Your task to perform on an android device: turn off priority inbox in the gmail app Image 0: 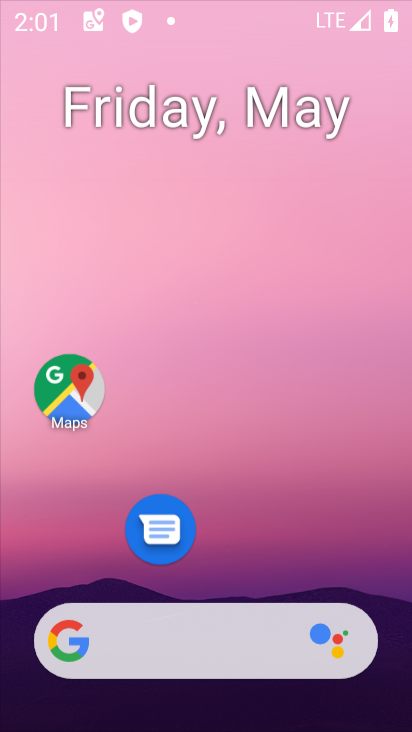
Step 0: drag from (208, 99) to (314, 258)
Your task to perform on an android device: turn off priority inbox in the gmail app Image 1: 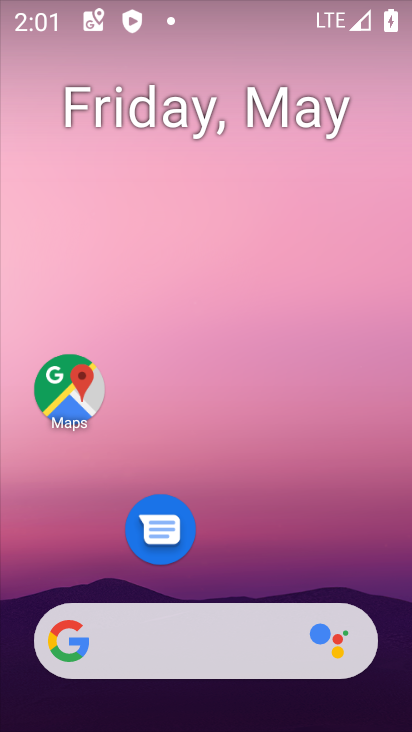
Step 1: drag from (215, 557) to (234, 59)
Your task to perform on an android device: turn off priority inbox in the gmail app Image 2: 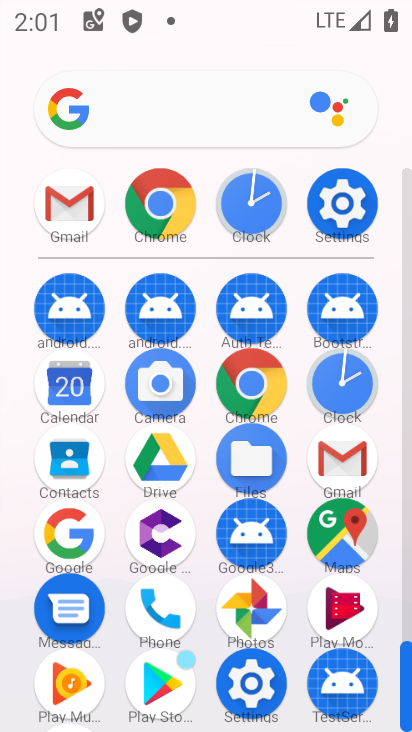
Step 2: click (334, 433)
Your task to perform on an android device: turn off priority inbox in the gmail app Image 3: 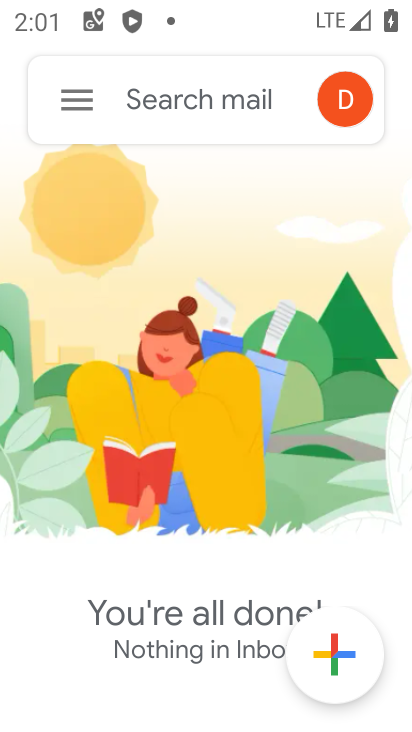
Step 3: click (83, 107)
Your task to perform on an android device: turn off priority inbox in the gmail app Image 4: 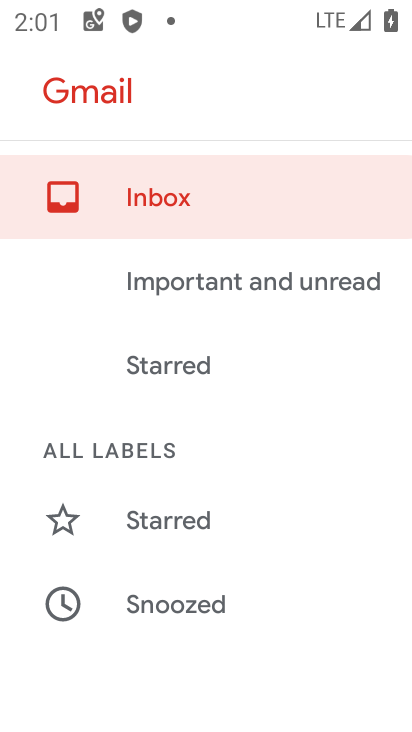
Step 4: drag from (139, 594) to (239, 193)
Your task to perform on an android device: turn off priority inbox in the gmail app Image 5: 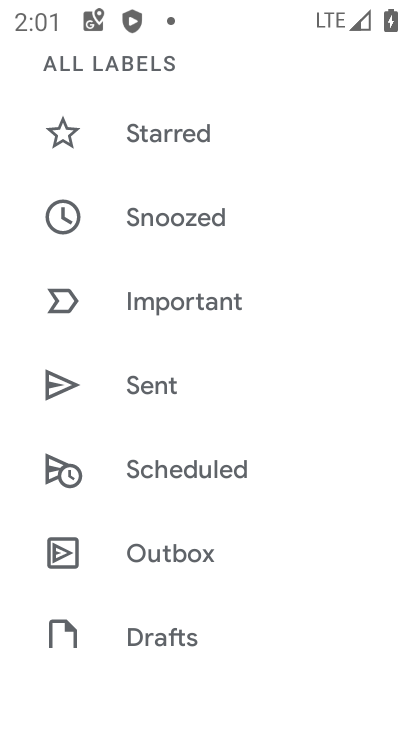
Step 5: drag from (183, 576) to (218, 284)
Your task to perform on an android device: turn off priority inbox in the gmail app Image 6: 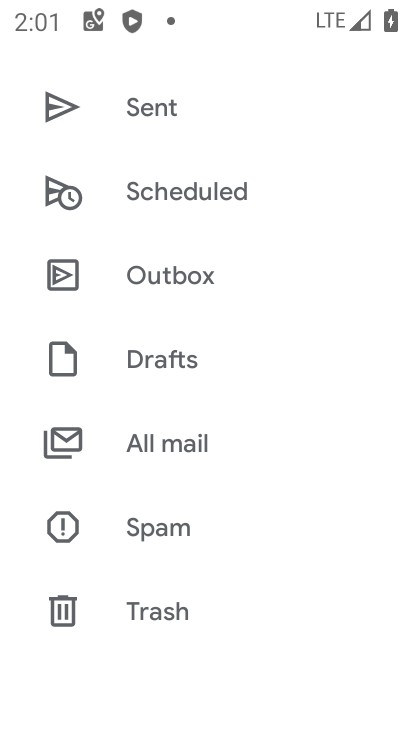
Step 6: drag from (197, 611) to (245, 317)
Your task to perform on an android device: turn off priority inbox in the gmail app Image 7: 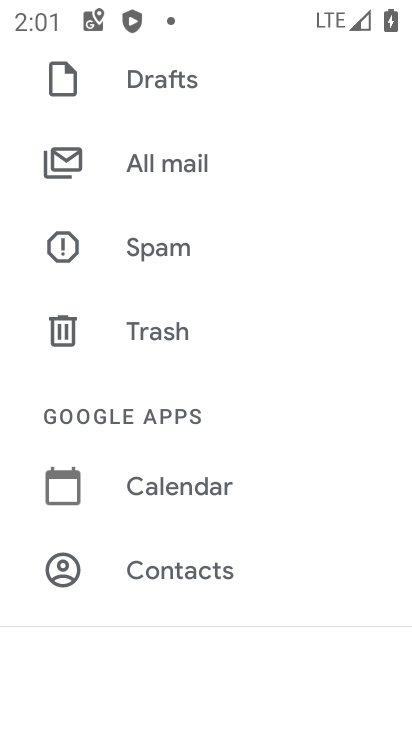
Step 7: drag from (212, 557) to (259, 268)
Your task to perform on an android device: turn off priority inbox in the gmail app Image 8: 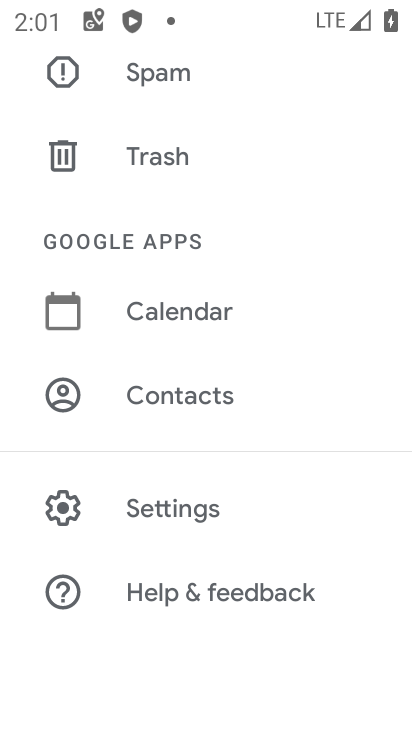
Step 8: click (180, 492)
Your task to perform on an android device: turn off priority inbox in the gmail app Image 9: 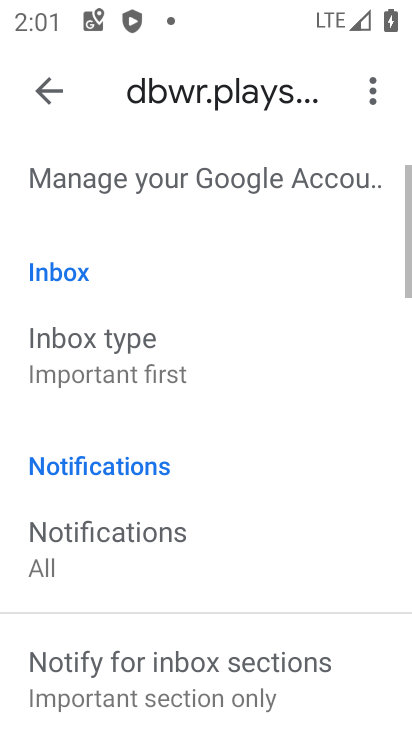
Step 9: drag from (212, 562) to (244, 164)
Your task to perform on an android device: turn off priority inbox in the gmail app Image 10: 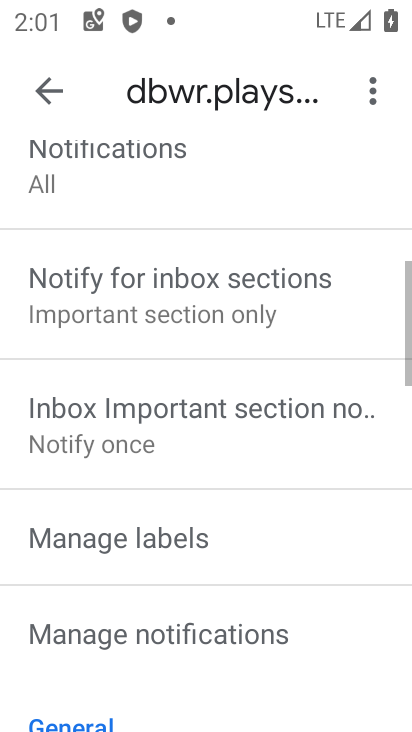
Step 10: drag from (208, 594) to (219, 341)
Your task to perform on an android device: turn off priority inbox in the gmail app Image 11: 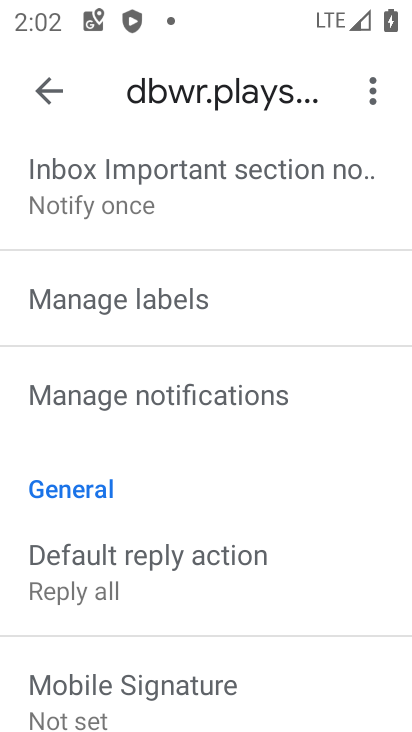
Step 11: drag from (239, 616) to (262, 312)
Your task to perform on an android device: turn off priority inbox in the gmail app Image 12: 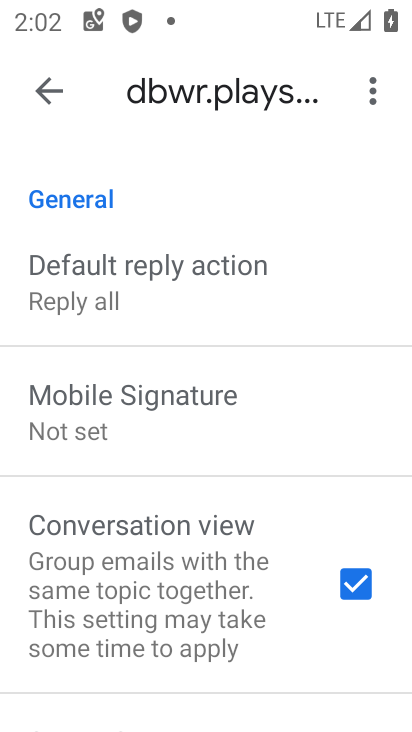
Step 12: drag from (223, 657) to (240, 281)
Your task to perform on an android device: turn off priority inbox in the gmail app Image 13: 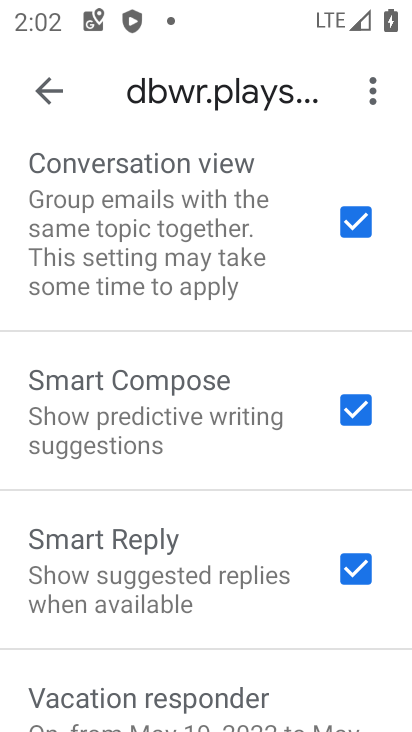
Step 13: drag from (223, 650) to (235, 276)
Your task to perform on an android device: turn off priority inbox in the gmail app Image 14: 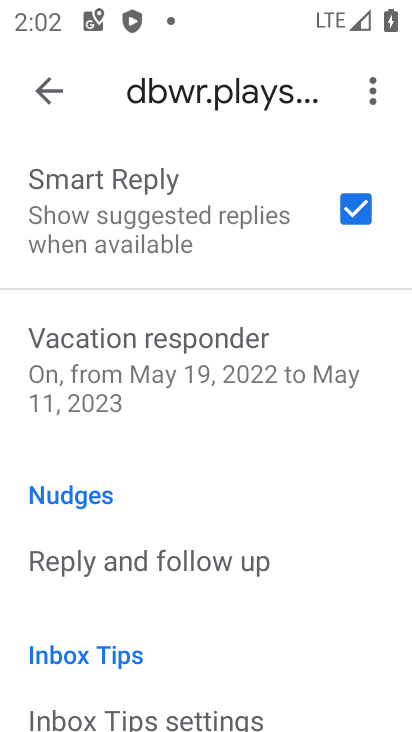
Step 14: drag from (187, 632) to (192, 344)
Your task to perform on an android device: turn off priority inbox in the gmail app Image 15: 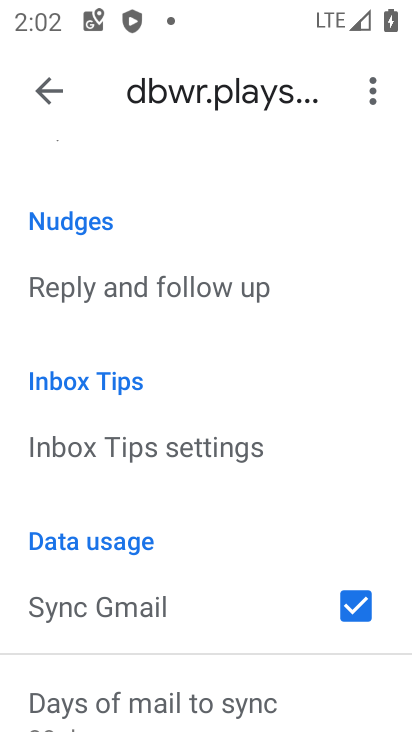
Step 15: drag from (195, 615) to (221, 260)
Your task to perform on an android device: turn off priority inbox in the gmail app Image 16: 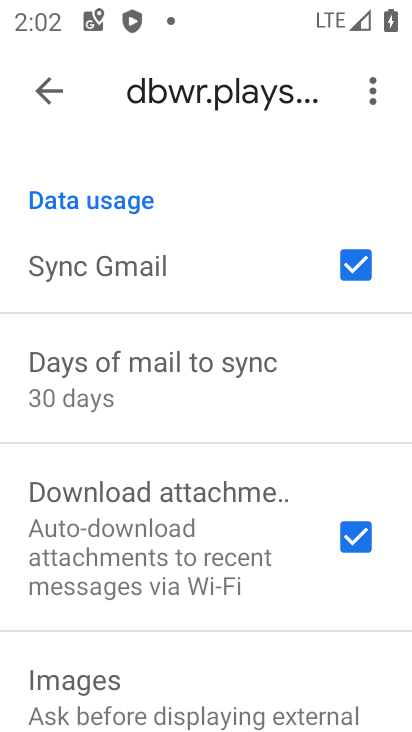
Step 16: drag from (193, 642) to (224, 244)
Your task to perform on an android device: turn off priority inbox in the gmail app Image 17: 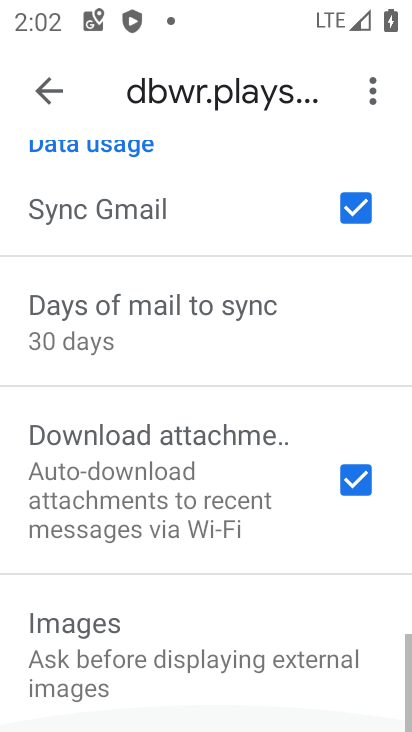
Step 17: drag from (222, 183) to (278, 708)
Your task to perform on an android device: turn off priority inbox in the gmail app Image 18: 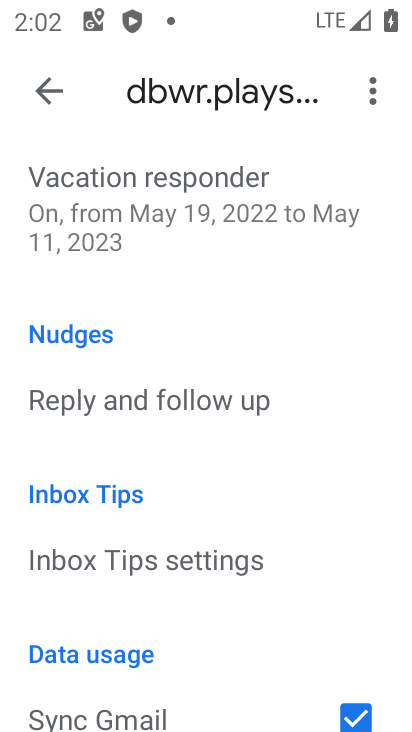
Step 18: drag from (151, 598) to (182, 393)
Your task to perform on an android device: turn off priority inbox in the gmail app Image 19: 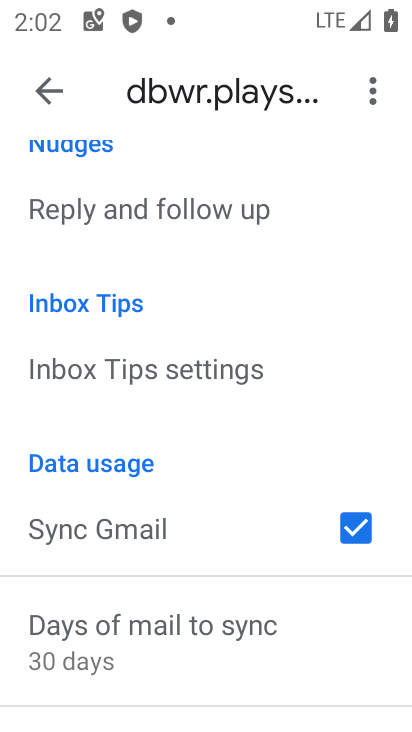
Step 19: drag from (199, 165) to (224, 645)
Your task to perform on an android device: turn off priority inbox in the gmail app Image 20: 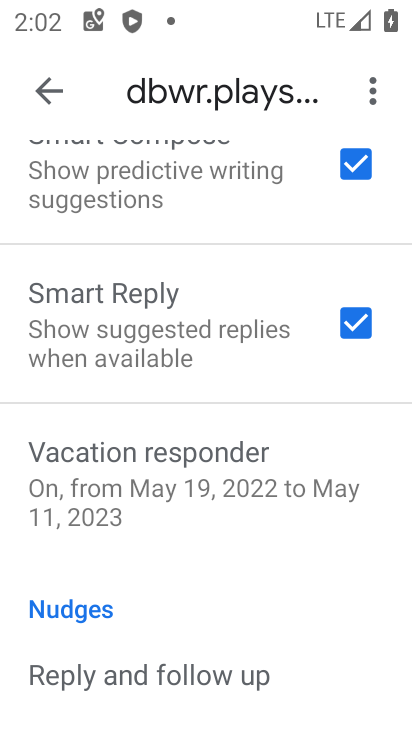
Step 20: drag from (195, 247) to (325, 729)
Your task to perform on an android device: turn off priority inbox in the gmail app Image 21: 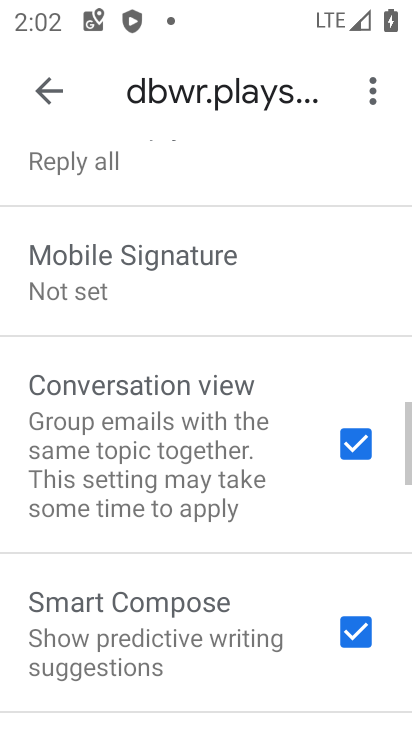
Step 21: drag from (195, 260) to (322, 729)
Your task to perform on an android device: turn off priority inbox in the gmail app Image 22: 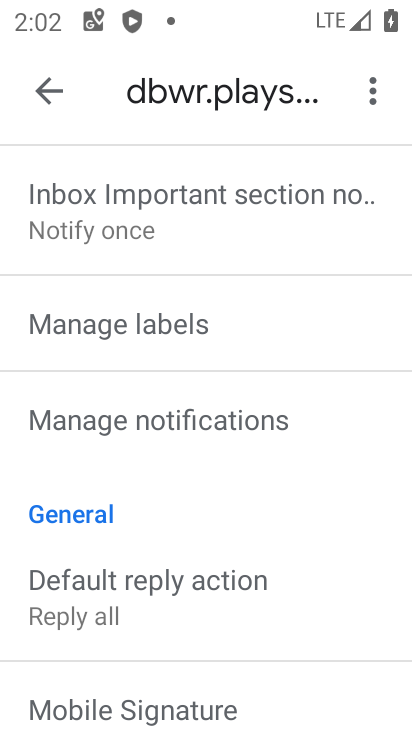
Step 22: drag from (160, 270) to (315, 729)
Your task to perform on an android device: turn off priority inbox in the gmail app Image 23: 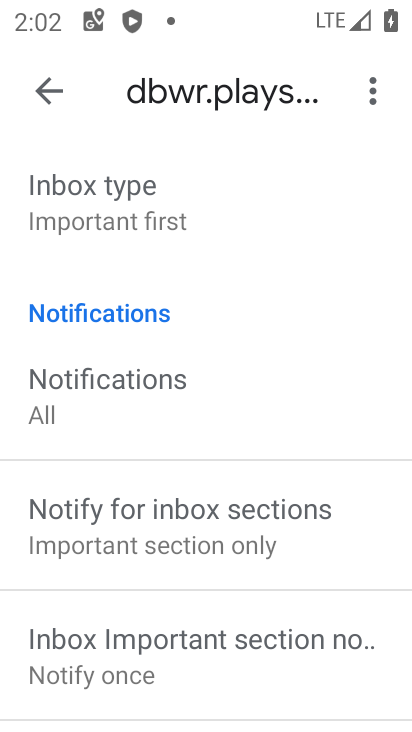
Step 23: drag from (175, 237) to (274, 640)
Your task to perform on an android device: turn off priority inbox in the gmail app Image 24: 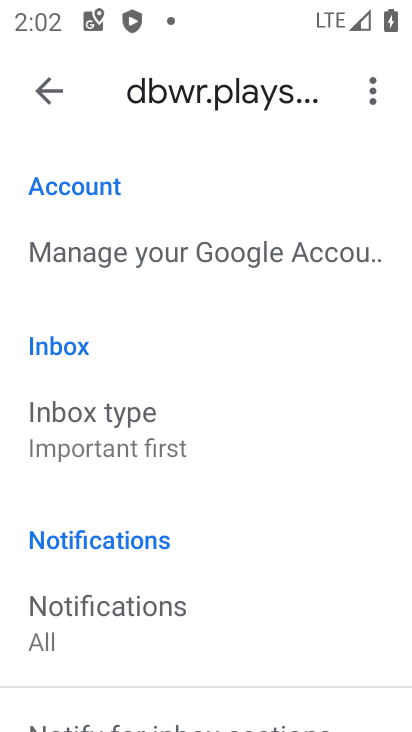
Step 24: click (137, 402)
Your task to perform on an android device: turn off priority inbox in the gmail app Image 25: 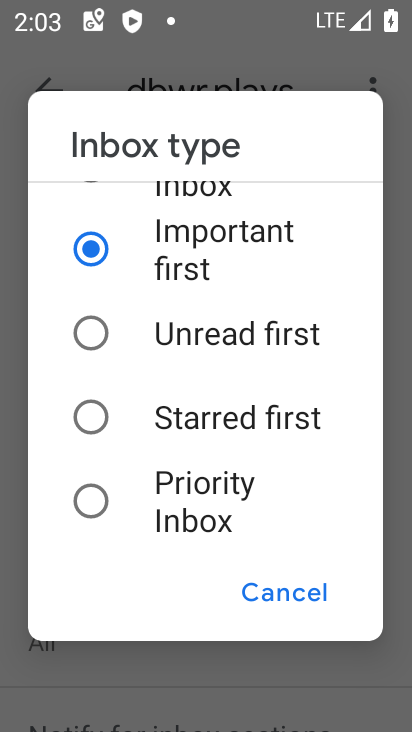
Step 25: click (177, 510)
Your task to perform on an android device: turn off priority inbox in the gmail app Image 26: 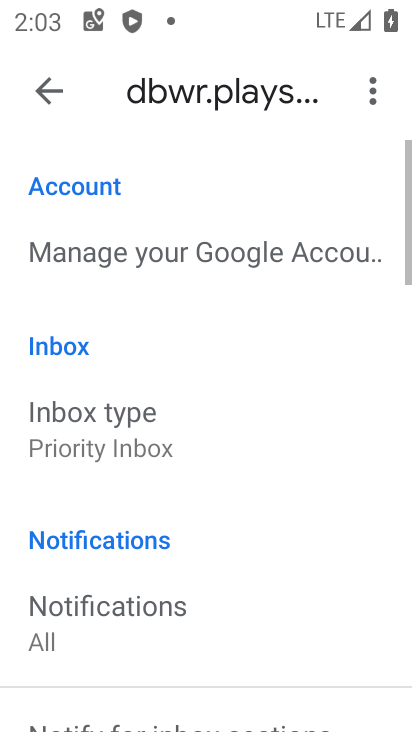
Step 26: task complete